Your task to perform on an android device: Open maps Image 0: 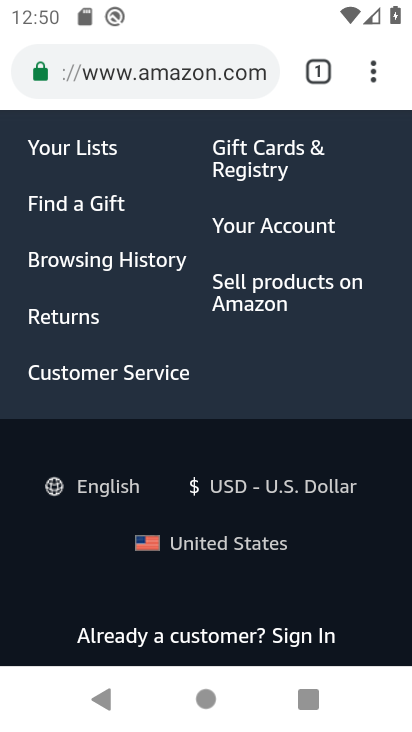
Step 0: press home button
Your task to perform on an android device: Open maps Image 1: 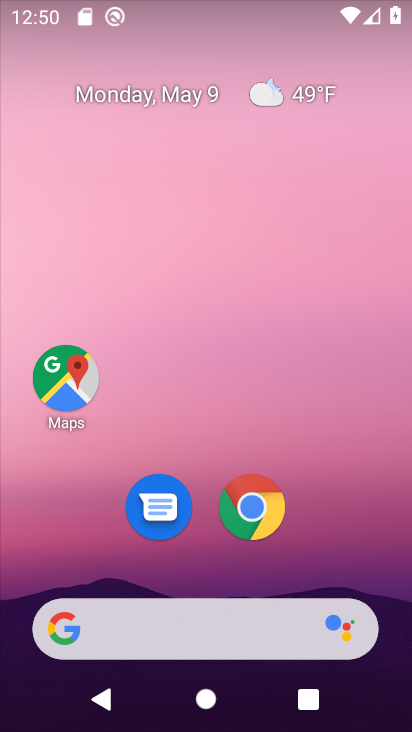
Step 1: click (75, 388)
Your task to perform on an android device: Open maps Image 2: 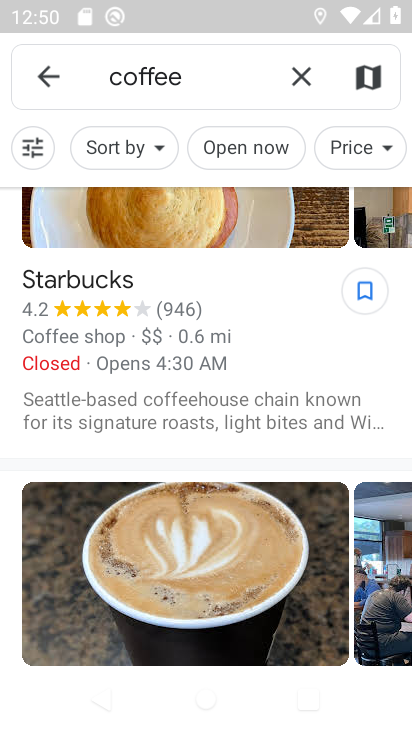
Step 2: click (304, 76)
Your task to perform on an android device: Open maps Image 3: 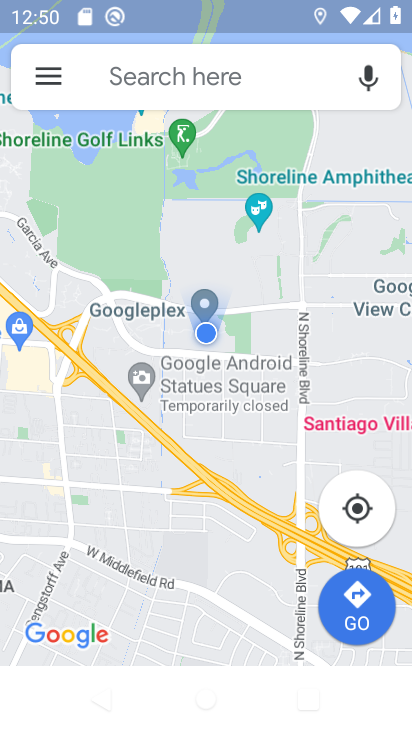
Step 3: task complete